Your task to perform on an android device: check data usage Image 0: 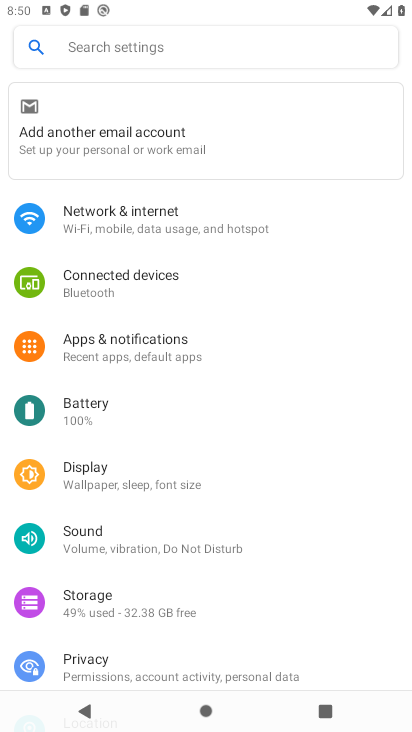
Step 0: click (158, 223)
Your task to perform on an android device: check data usage Image 1: 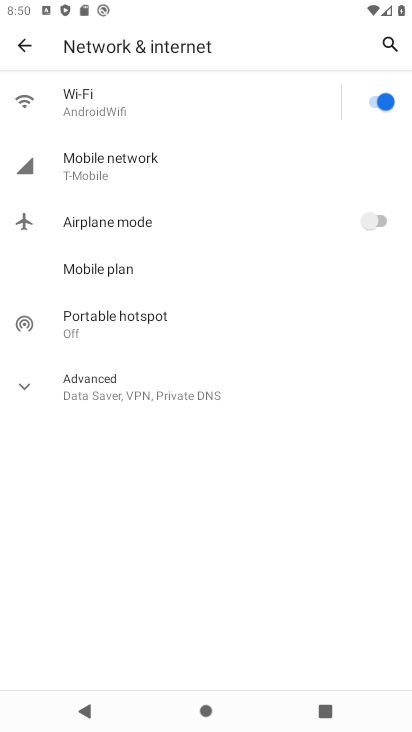
Step 1: click (136, 160)
Your task to perform on an android device: check data usage Image 2: 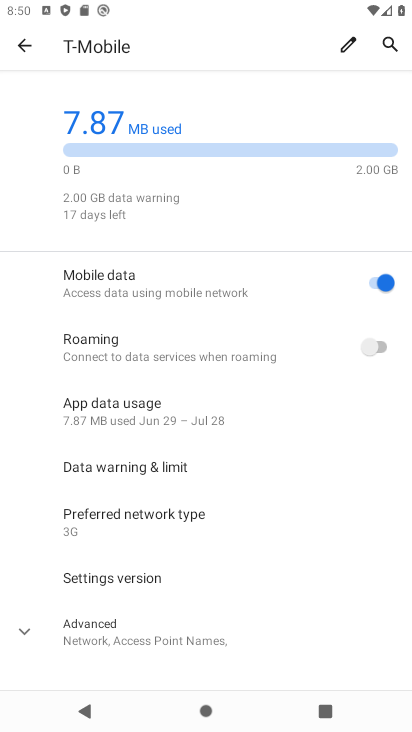
Step 2: task complete